Your task to perform on an android device: Go to wifi settings Image 0: 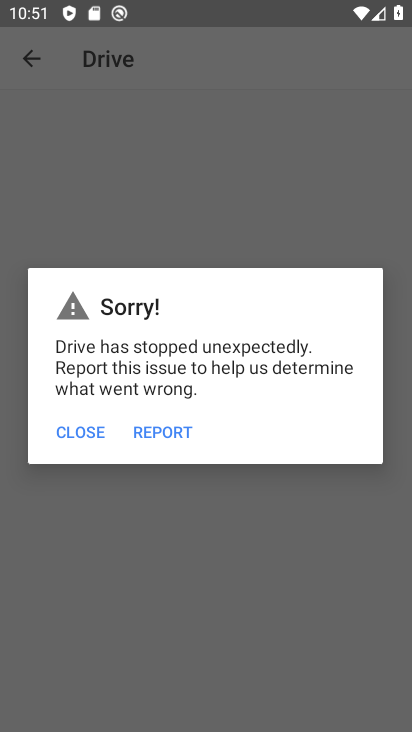
Step 0: press home button
Your task to perform on an android device: Go to wifi settings Image 1: 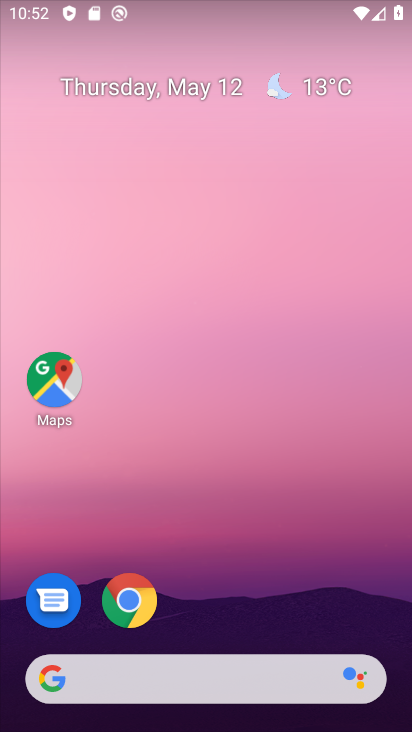
Step 1: drag from (375, 629) to (290, 214)
Your task to perform on an android device: Go to wifi settings Image 2: 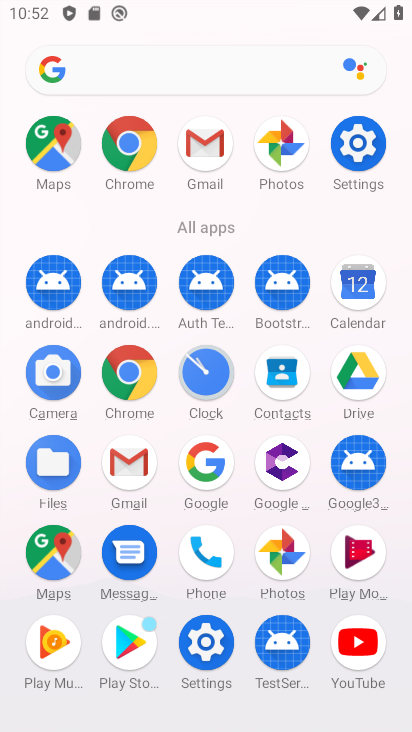
Step 2: click (207, 639)
Your task to perform on an android device: Go to wifi settings Image 3: 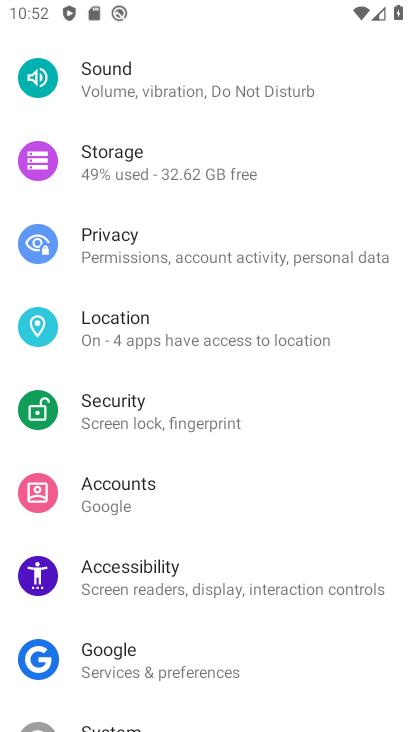
Step 3: drag from (341, 169) to (353, 434)
Your task to perform on an android device: Go to wifi settings Image 4: 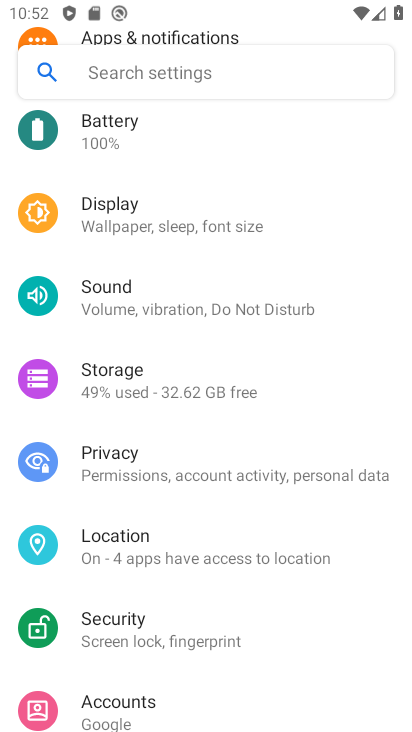
Step 4: drag from (349, 215) to (360, 478)
Your task to perform on an android device: Go to wifi settings Image 5: 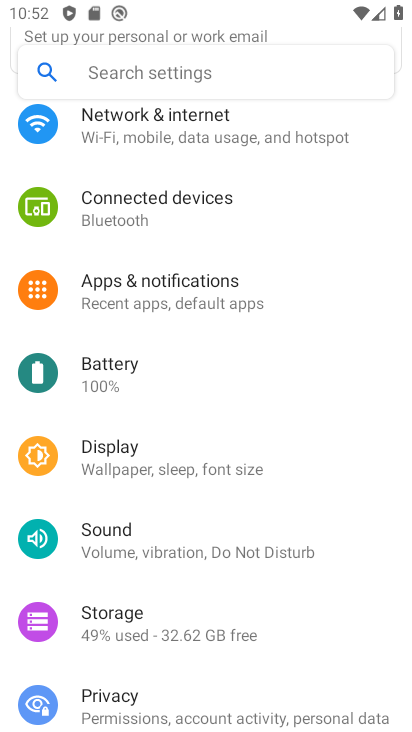
Step 5: click (141, 115)
Your task to perform on an android device: Go to wifi settings Image 6: 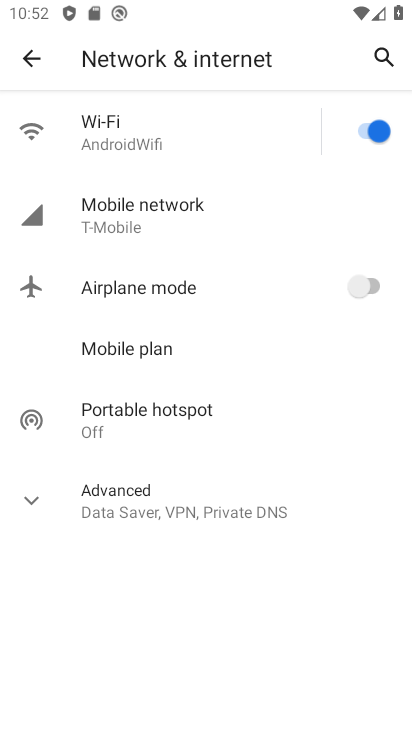
Step 6: click (113, 134)
Your task to perform on an android device: Go to wifi settings Image 7: 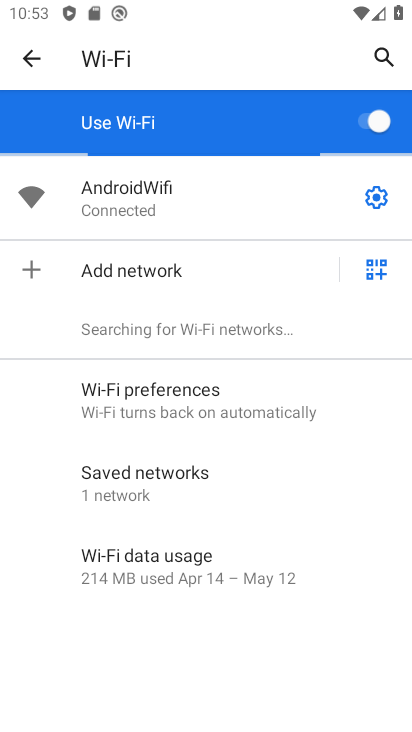
Step 7: click (376, 201)
Your task to perform on an android device: Go to wifi settings Image 8: 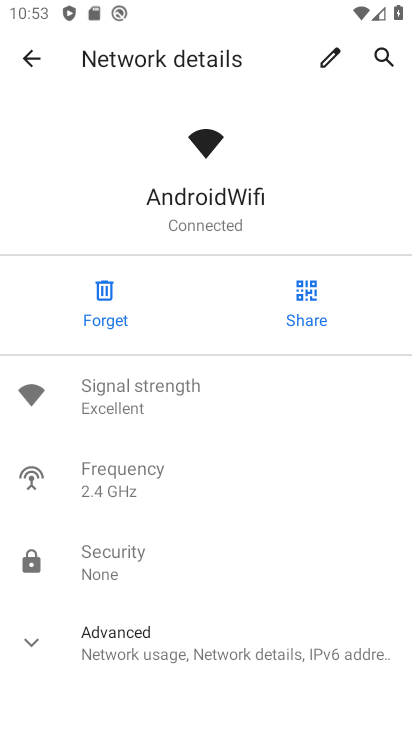
Step 8: click (26, 637)
Your task to perform on an android device: Go to wifi settings Image 9: 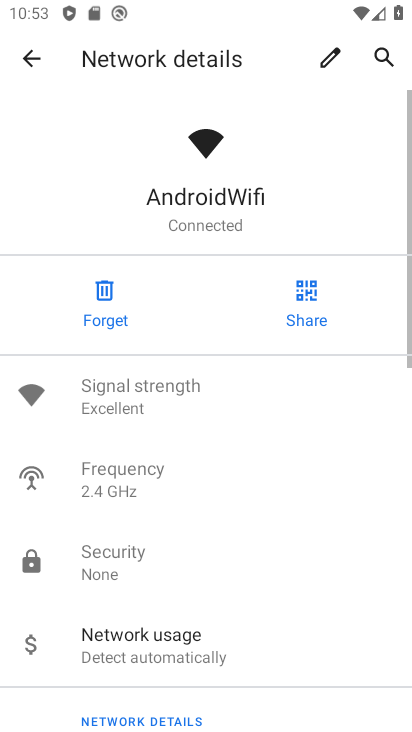
Step 9: task complete